Your task to perform on an android device: Go to Android settings Image 0: 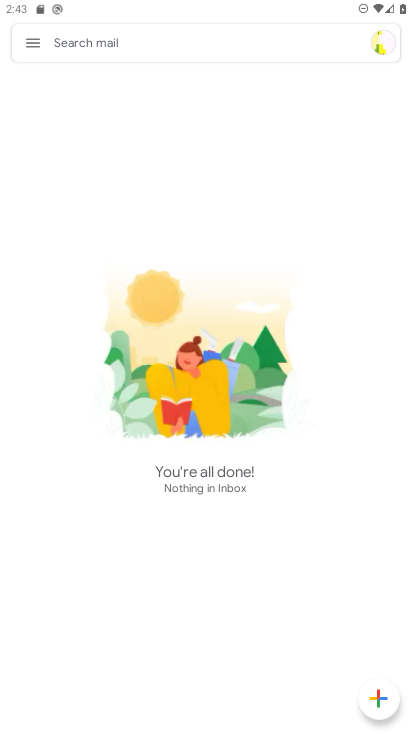
Step 0: press home button
Your task to perform on an android device: Go to Android settings Image 1: 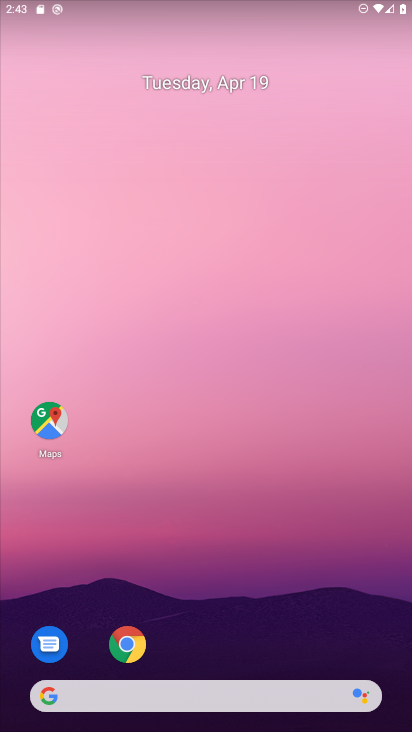
Step 1: drag from (205, 646) to (110, 92)
Your task to perform on an android device: Go to Android settings Image 2: 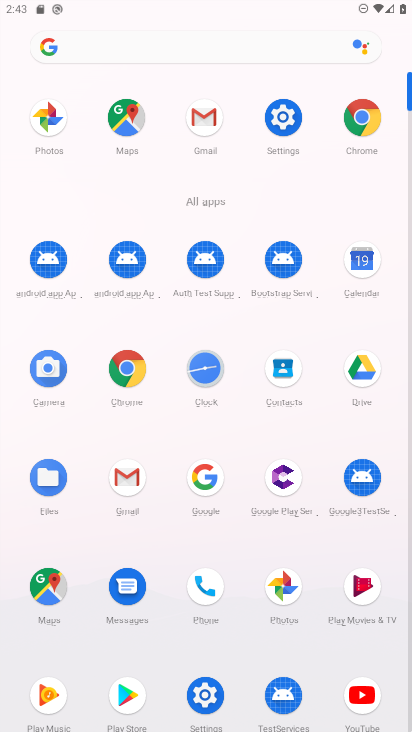
Step 2: click (285, 124)
Your task to perform on an android device: Go to Android settings Image 3: 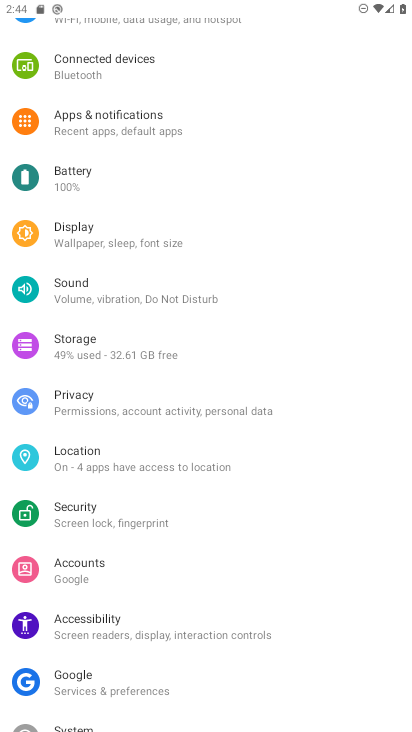
Step 3: drag from (130, 620) to (139, 233)
Your task to perform on an android device: Go to Android settings Image 4: 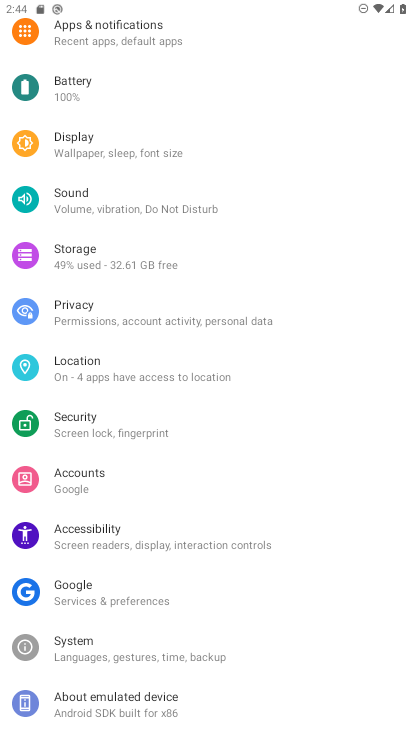
Step 4: click (82, 705)
Your task to perform on an android device: Go to Android settings Image 5: 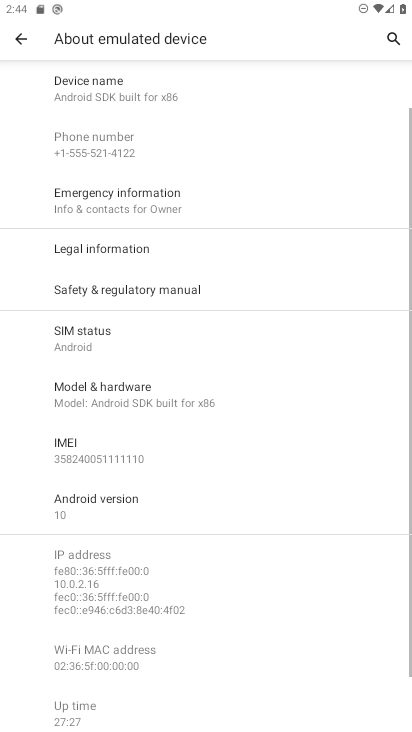
Step 5: drag from (109, 569) to (109, 518)
Your task to perform on an android device: Go to Android settings Image 6: 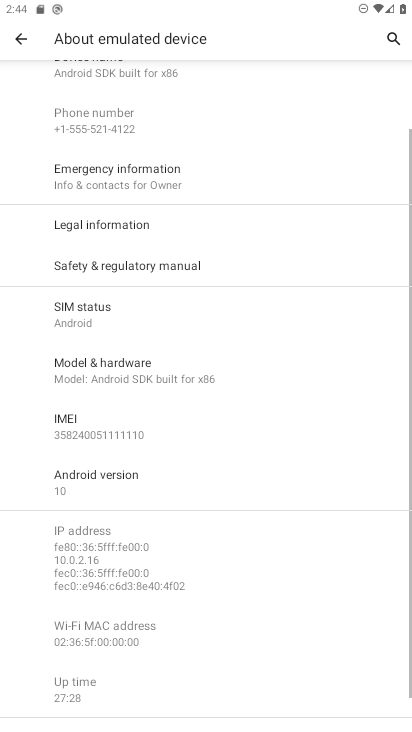
Step 6: click (101, 488)
Your task to perform on an android device: Go to Android settings Image 7: 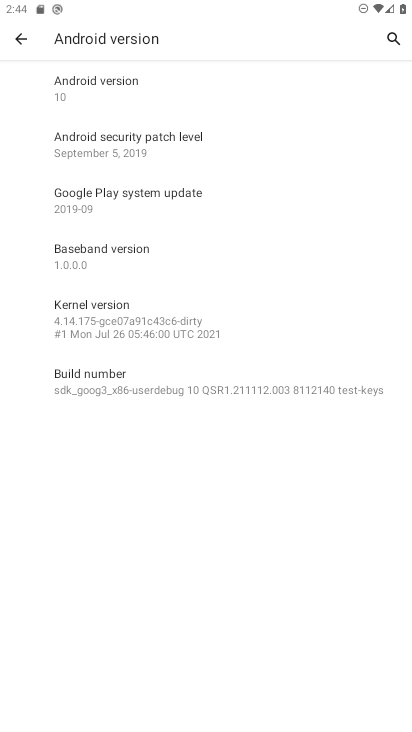
Step 7: click (27, 39)
Your task to perform on an android device: Go to Android settings Image 8: 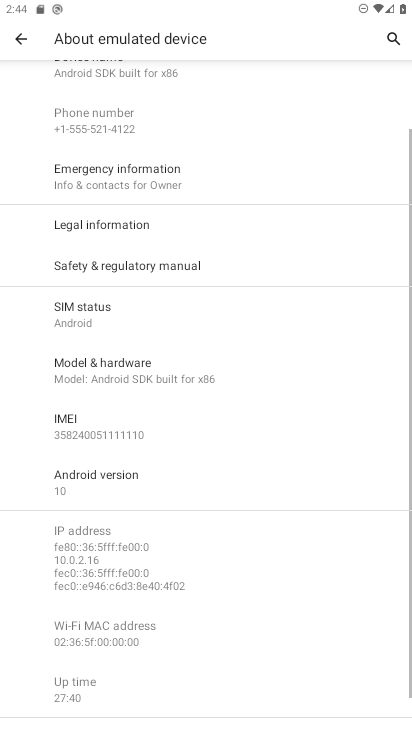
Step 8: task complete